Your task to perform on an android device: Show me recent news Image 0: 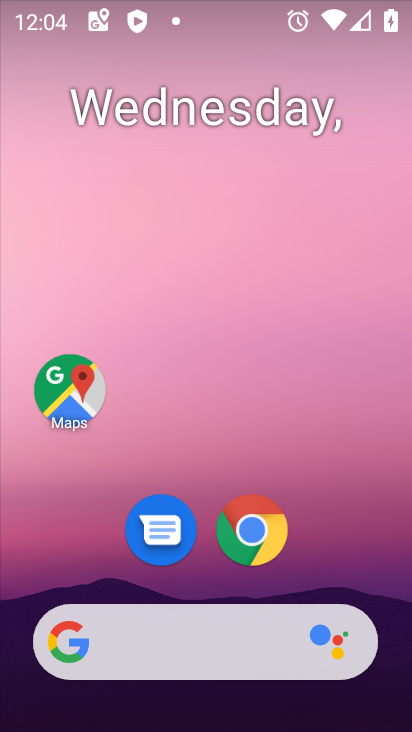
Step 0: click (263, 532)
Your task to perform on an android device: Show me recent news Image 1: 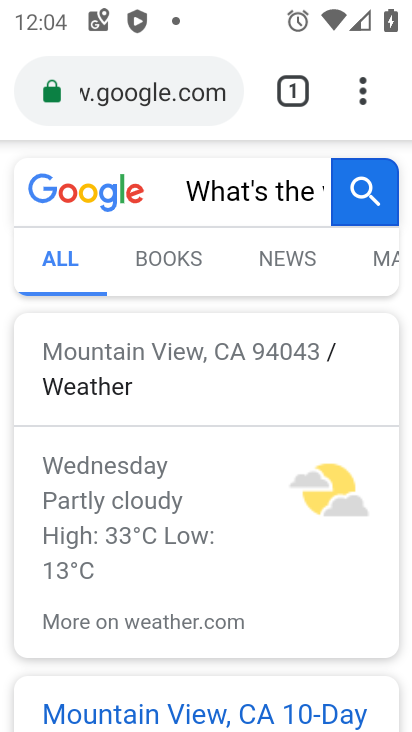
Step 1: click (121, 106)
Your task to perform on an android device: Show me recent news Image 2: 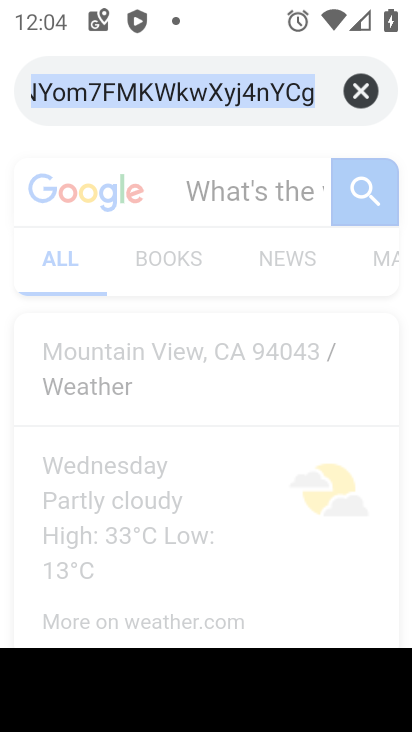
Step 2: type "recent news"
Your task to perform on an android device: Show me recent news Image 3: 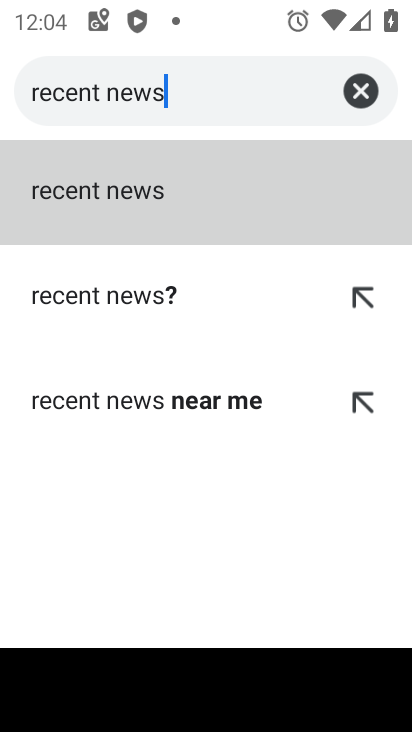
Step 3: click (147, 194)
Your task to perform on an android device: Show me recent news Image 4: 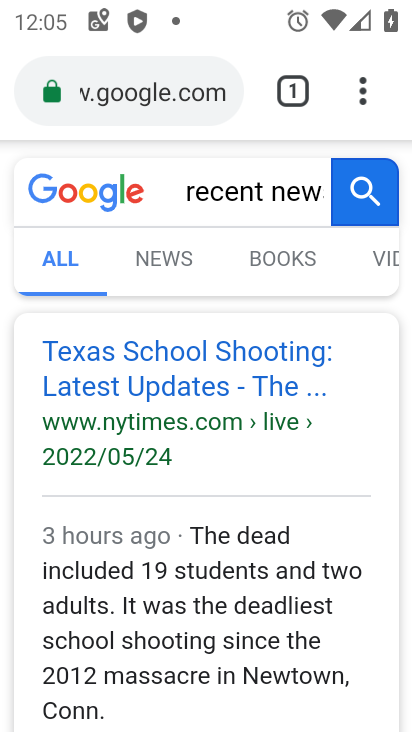
Step 4: task complete